Your task to perform on an android device: Show the shopping cart on costco.com. Add logitech g903 to the cart on costco.com Image 0: 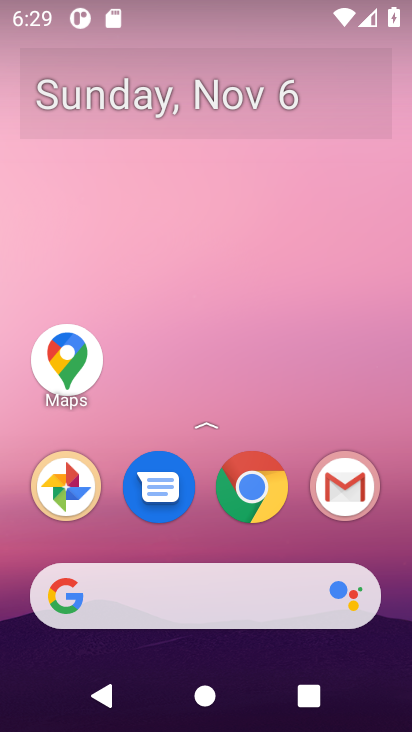
Step 0: click (255, 507)
Your task to perform on an android device: Show the shopping cart on costco.com. Add logitech g903 to the cart on costco.com Image 1: 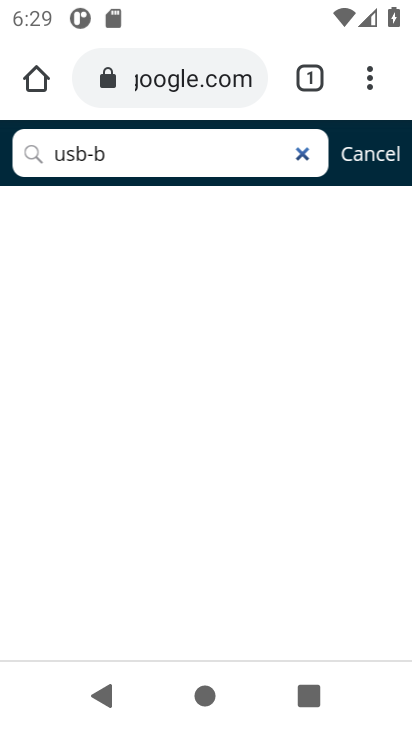
Step 1: click (206, 81)
Your task to perform on an android device: Show the shopping cart on costco.com. Add logitech g903 to the cart on costco.com Image 2: 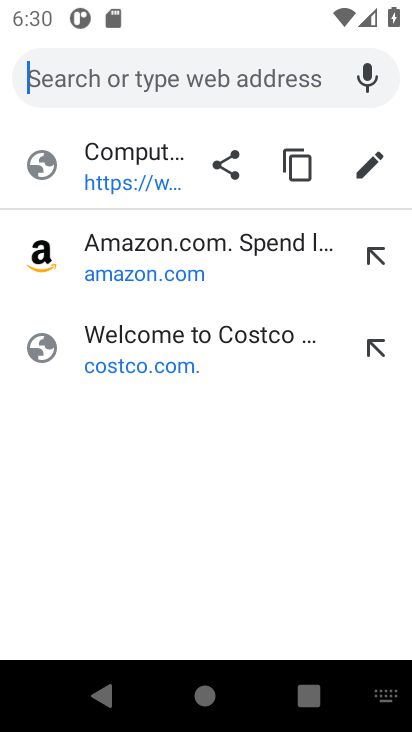
Step 2: click (161, 352)
Your task to perform on an android device: Show the shopping cart on costco.com. Add logitech g903 to the cart on costco.com Image 3: 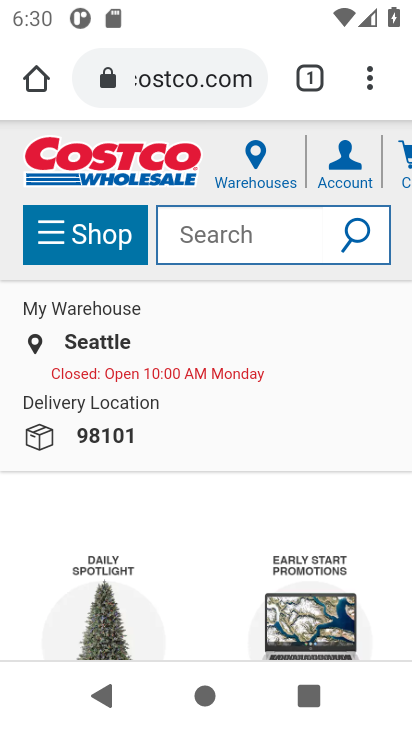
Step 3: click (395, 172)
Your task to perform on an android device: Show the shopping cart on costco.com. Add logitech g903 to the cart on costco.com Image 4: 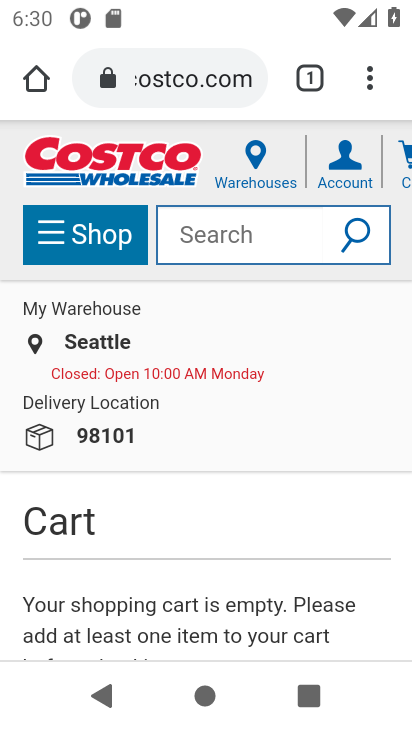
Step 4: click (261, 243)
Your task to perform on an android device: Show the shopping cart on costco.com. Add logitech g903 to the cart on costco.com Image 5: 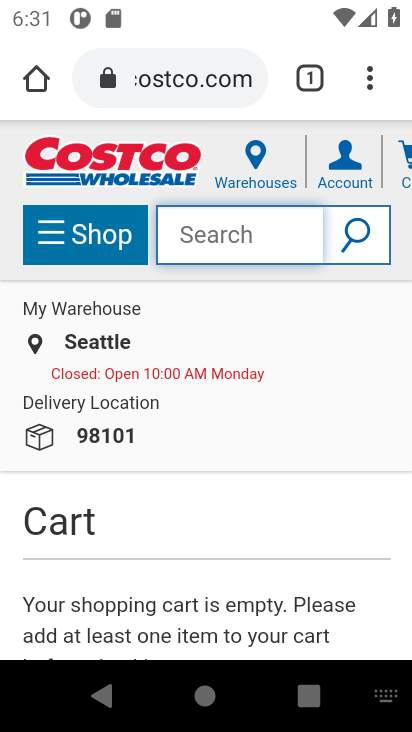
Step 5: type "logitech g903 "
Your task to perform on an android device: Show the shopping cart on costco.com. Add logitech g903 to the cart on costco.com Image 6: 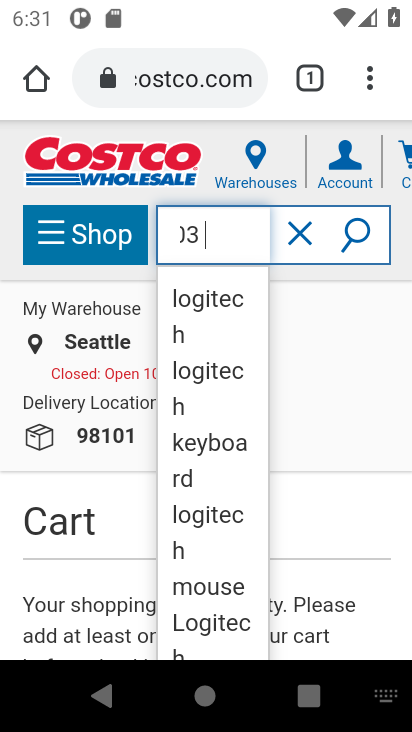
Step 6: click (345, 241)
Your task to perform on an android device: Show the shopping cart on costco.com. Add logitech g903 to the cart on costco.com Image 7: 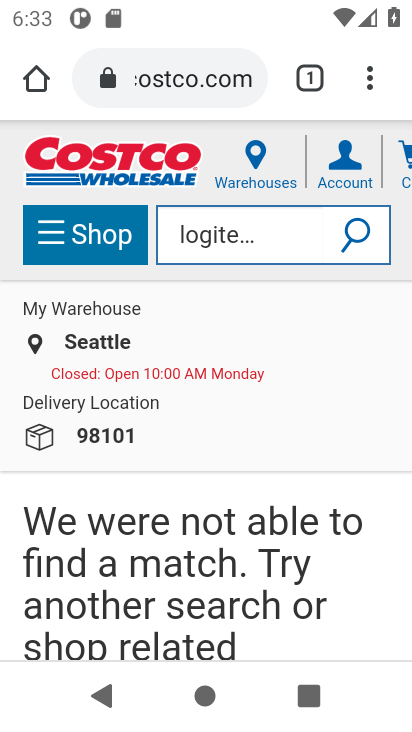
Step 7: task complete